Your task to perform on an android device: Open Maps and search for coffee Image 0: 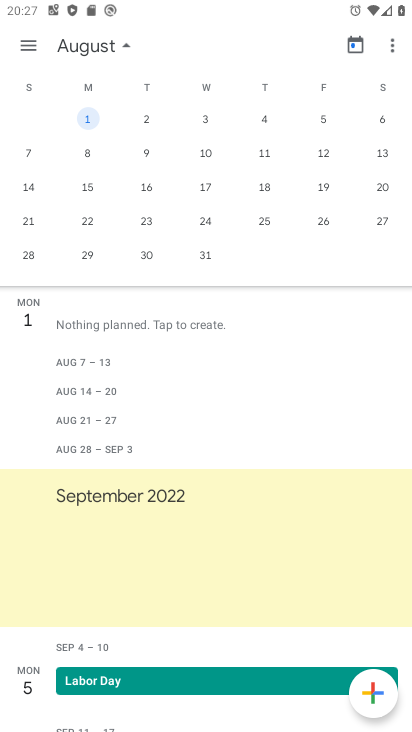
Step 0: press home button
Your task to perform on an android device: Open Maps and search for coffee Image 1: 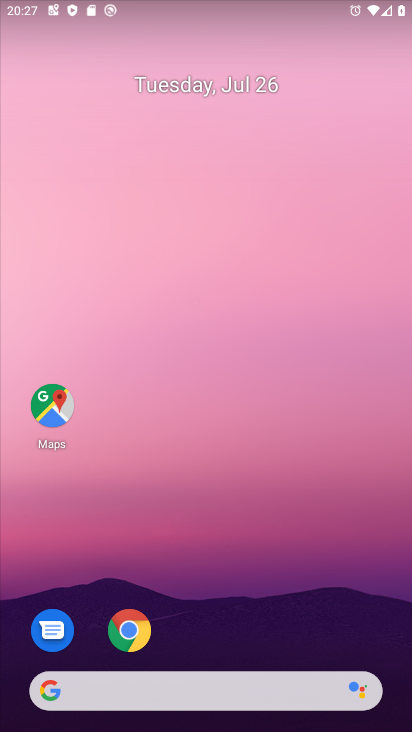
Step 1: drag from (348, 621) to (363, 92)
Your task to perform on an android device: Open Maps and search for coffee Image 2: 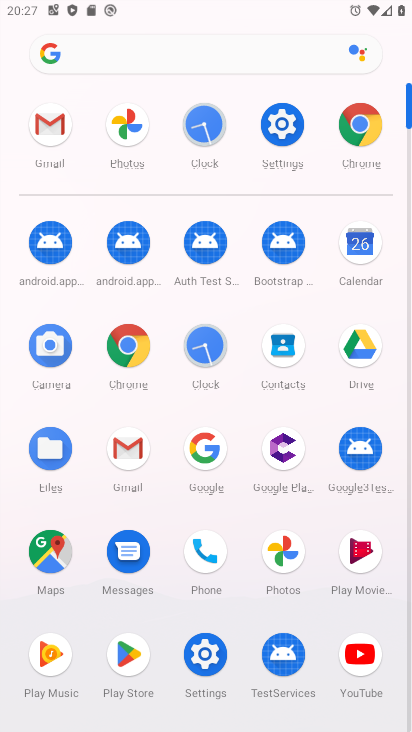
Step 2: click (42, 556)
Your task to perform on an android device: Open Maps and search for coffee Image 3: 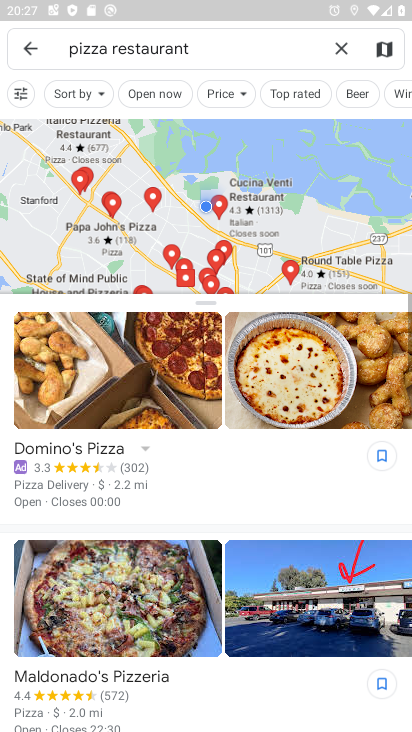
Step 3: press back button
Your task to perform on an android device: Open Maps and search for coffee Image 4: 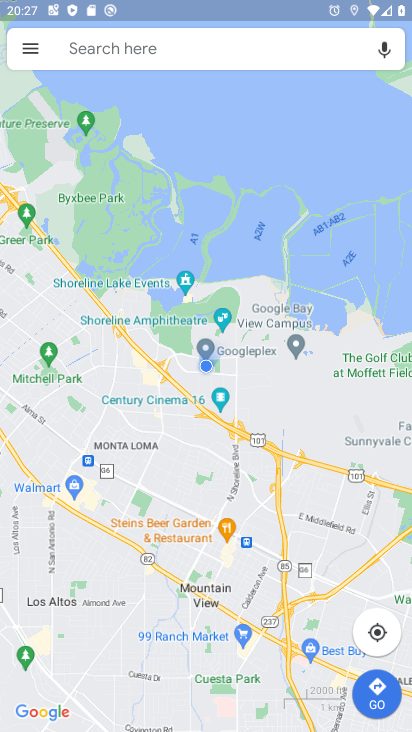
Step 4: click (338, 56)
Your task to perform on an android device: Open Maps and search for coffee Image 5: 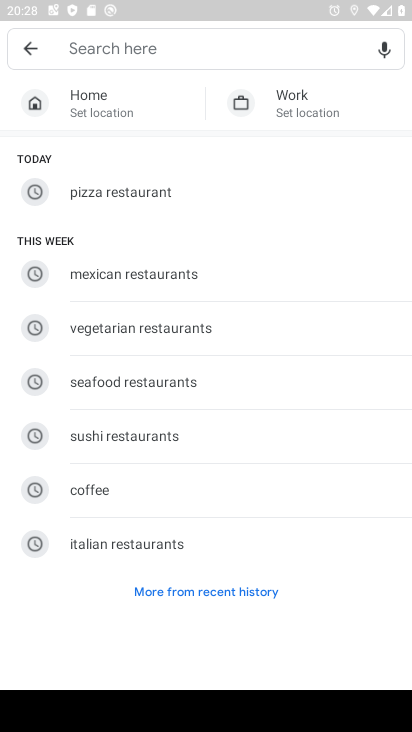
Step 5: type "coffee"
Your task to perform on an android device: Open Maps and search for coffee Image 6: 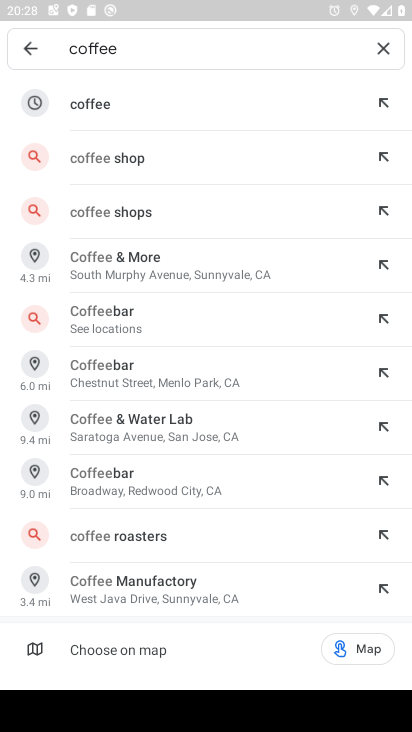
Step 6: click (284, 115)
Your task to perform on an android device: Open Maps and search for coffee Image 7: 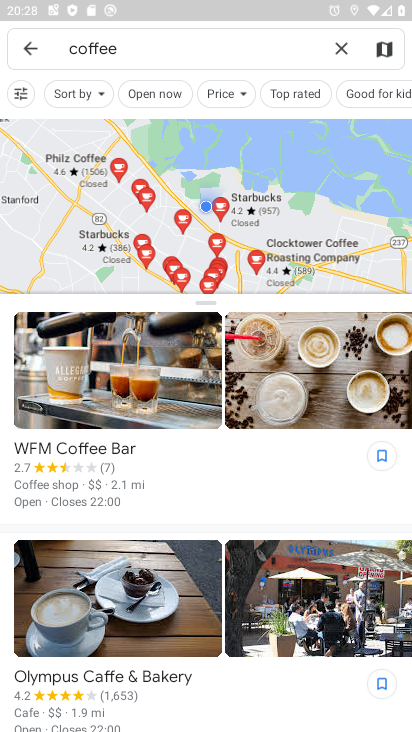
Step 7: task complete